Your task to perform on an android device: change the clock style Image 0: 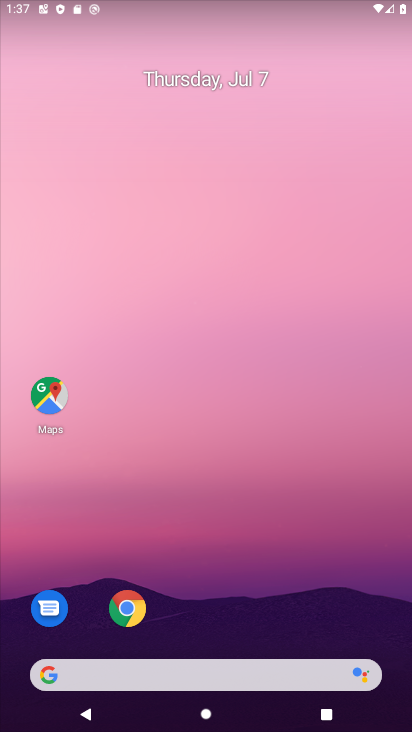
Step 0: drag from (339, 636) to (314, 138)
Your task to perform on an android device: change the clock style Image 1: 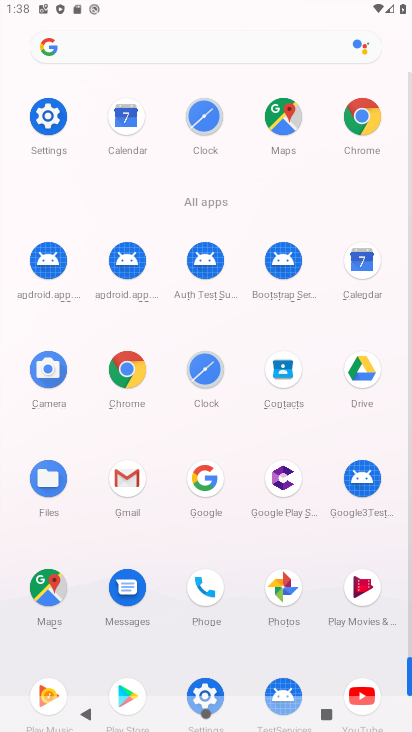
Step 1: click (201, 368)
Your task to perform on an android device: change the clock style Image 2: 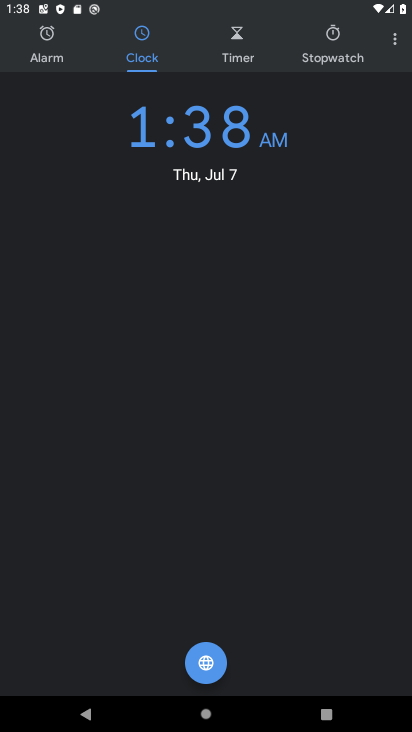
Step 2: click (386, 37)
Your task to perform on an android device: change the clock style Image 3: 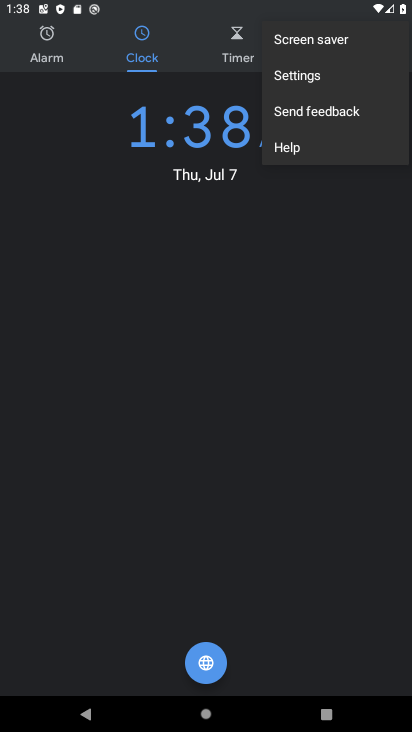
Step 3: click (347, 77)
Your task to perform on an android device: change the clock style Image 4: 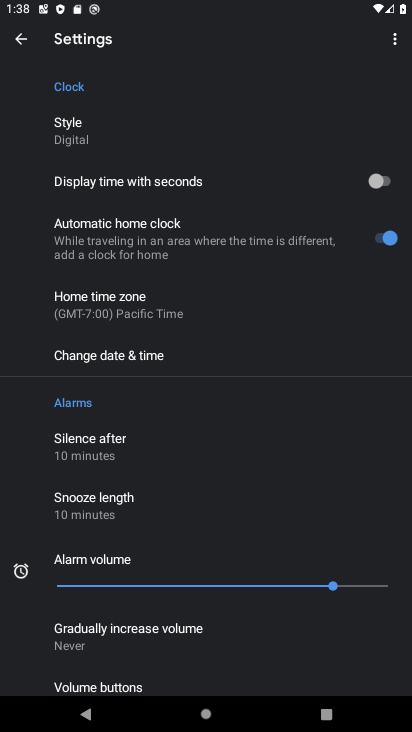
Step 4: drag from (174, 563) to (171, 611)
Your task to perform on an android device: change the clock style Image 5: 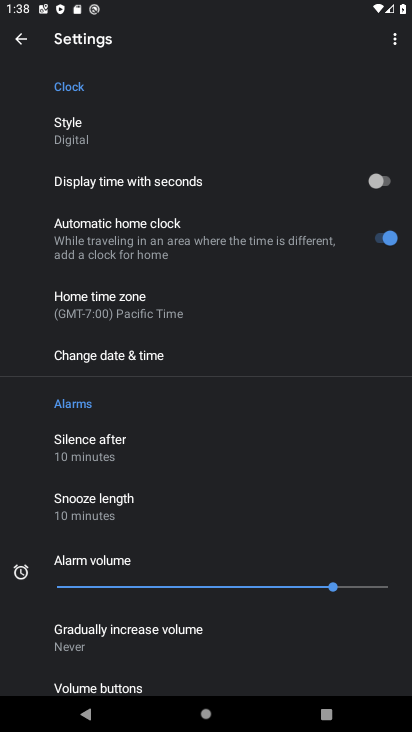
Step 5: click (105, 134)
Your task to perform on an android device: change the clock style Image 6: 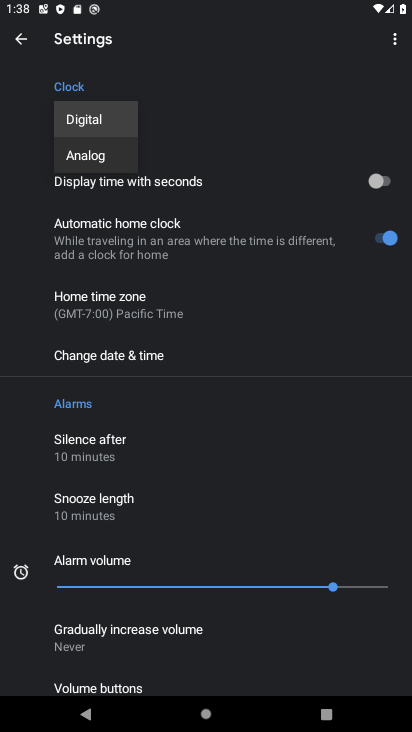
Step 6: drag from (207, 530) to (239, 12)
Your task to perform on an android device: change the clock style Image 7: 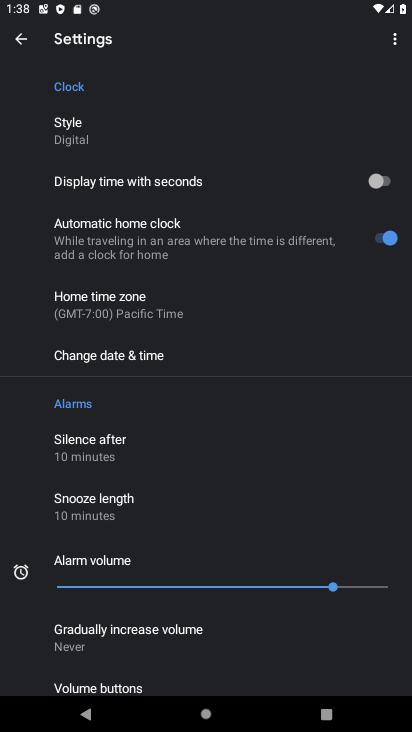
Step 7: drag from (244, 495) to (261, 105)
Your task to perform on an android device: change the clock style Image 8: 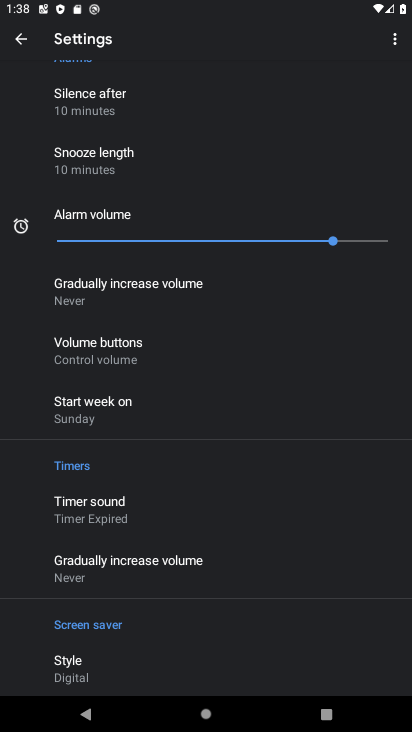
Step 8: click (102, 666)
Your task to perform on an android device: change the clock style Image 9: 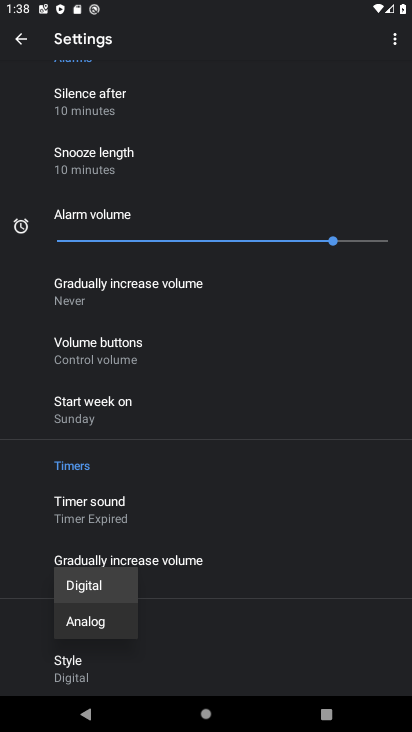
Step 9: click (108, 617)
Your task to perform on an android device: change the clock style Image 10: 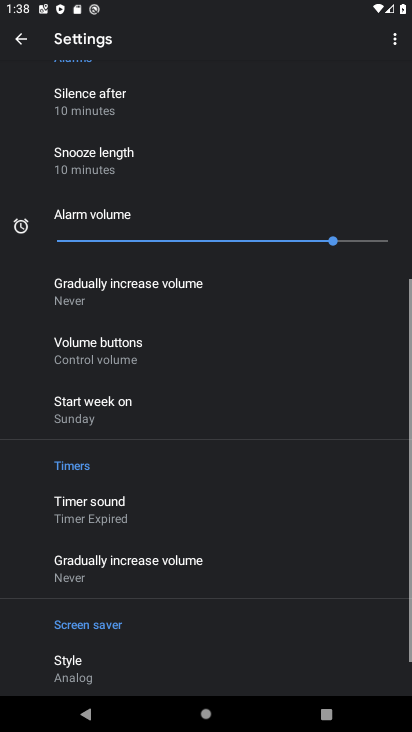
Step 10: task complete